Your task to perform on an android device: Search for sushi restaurants on Maps Image 0: 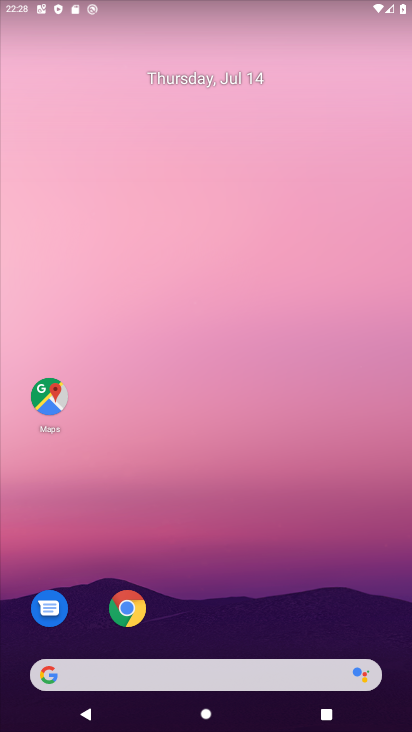
Step 0: drag from (187, 78) to (237, 51)
Your task to perform on an android device: Search for sushi restaurants on Maps Image 1: 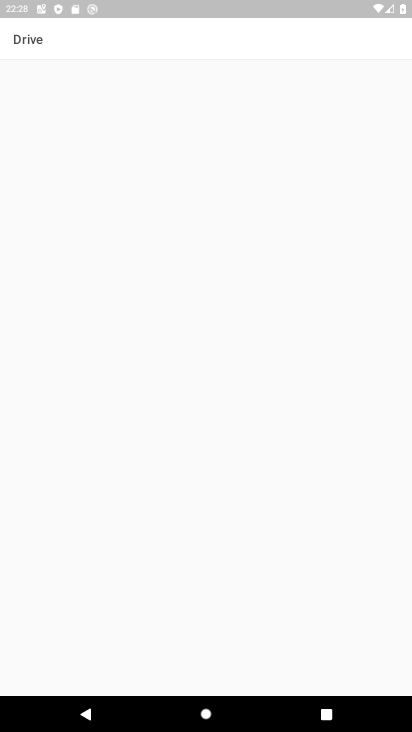
Step 1: press home button
Your task to perform on an android device: Search for sushi restaurants on Maps Image 2: 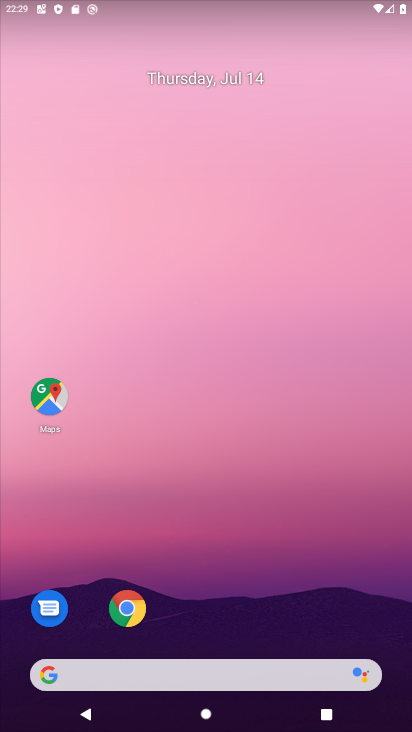
Step 2: drag from (190, 641) to (207, 3)
Your task to perform on an android device: Search for sushi restaurants on Maps Image 3: 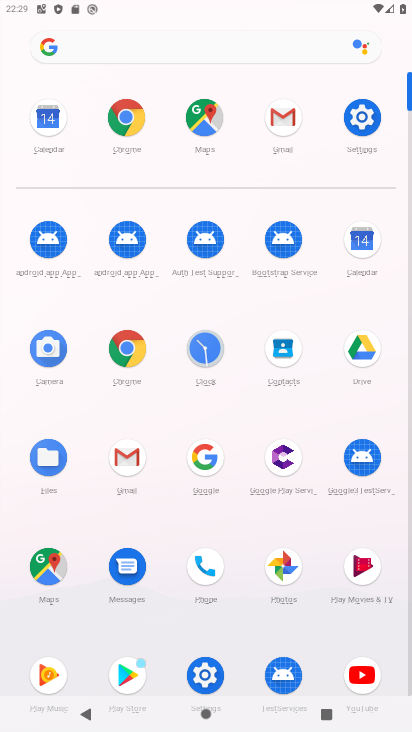
Step 3: click (204, 141)
Your task to perform on an android device: Search for sushi restaurants on Maps Image 4: 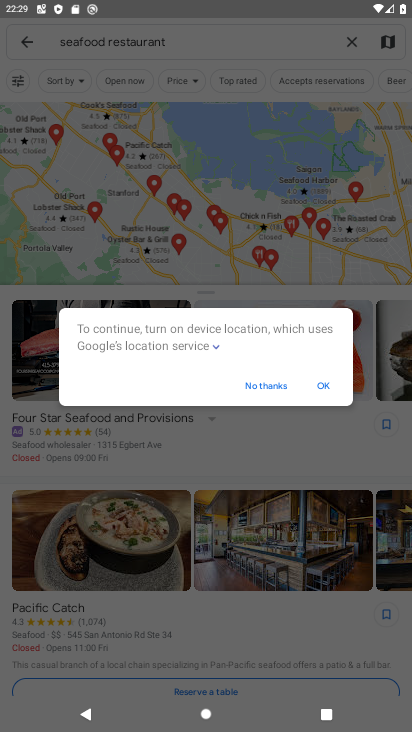
Step 4: click (274, 389)
Your task to perform on an android device: Search for sushi restaurants on Maps Image 5: 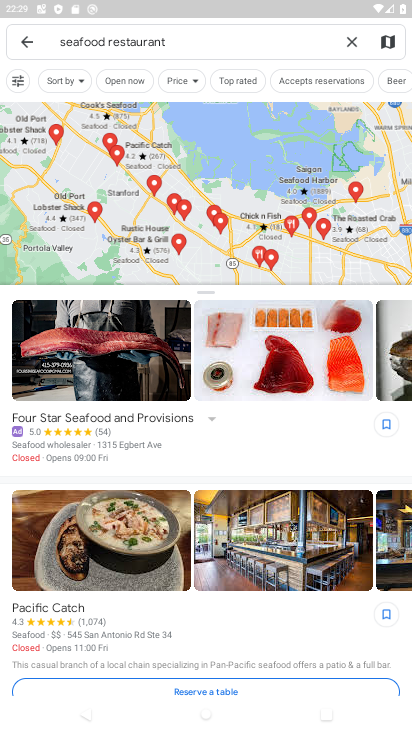
Step 5: click (345, 41)
Your task to perform on an android device: Search for sushi restaurants on Maps Image 6: 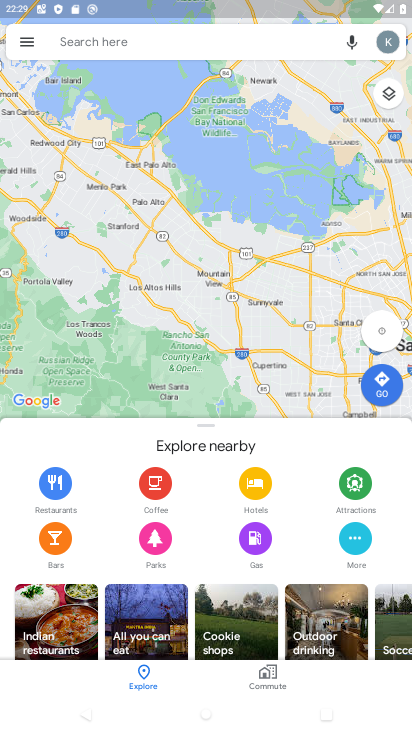
Step 6: click (185, 45)
Your task to perform on an android device: Search for sushi restaurants on Maps Image 7: 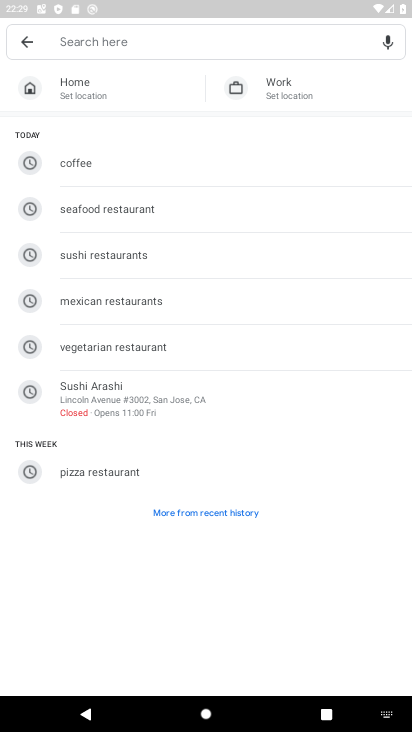
Step 7: click (104, 255)
Your task to perform on an android device: Search for sushi restaurants on Maps Image 8: 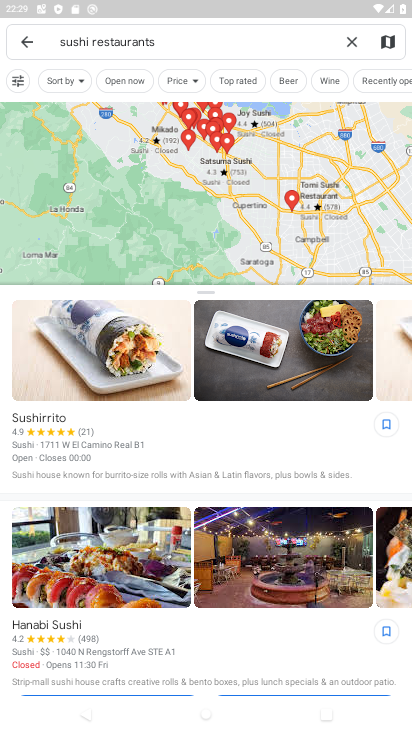
Step 8: task complete